Your task to perform on an android device: Open location settings Image 0: 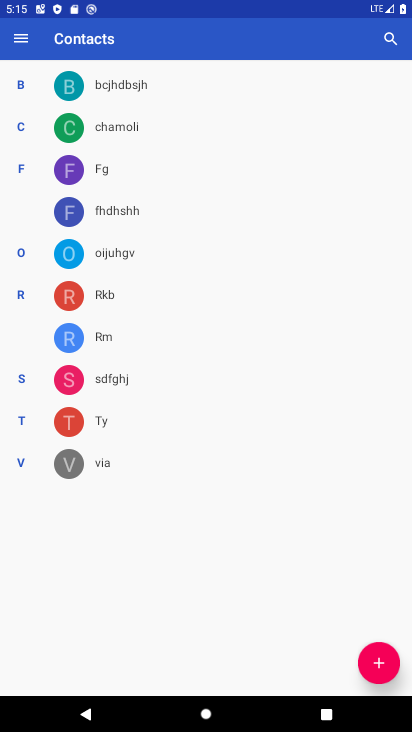
Step 0: drag from (245, 6) to (264, 609)
Your task to perform on an android device: Open location settings Image 1: 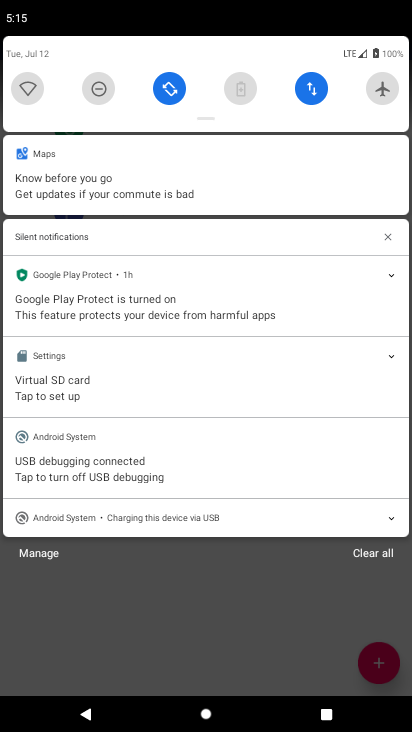
Step 1: drag from (208, 76) to (198, 665)
Your task to perform on an android device: Open location settings Image 2: 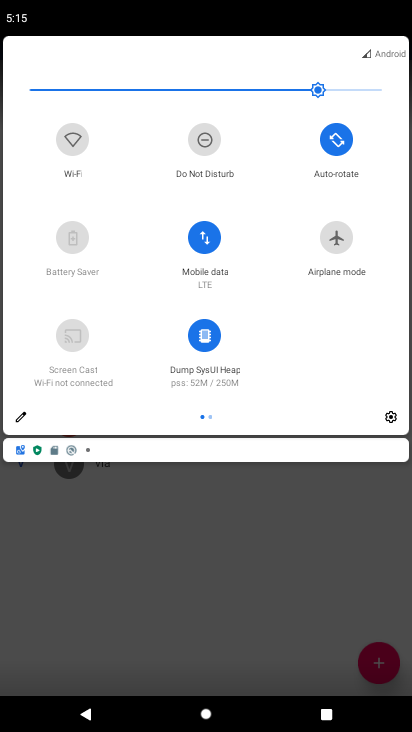
Step 2: click (378, 414)
Your task to perform on an android device: Open location settings Image 3: 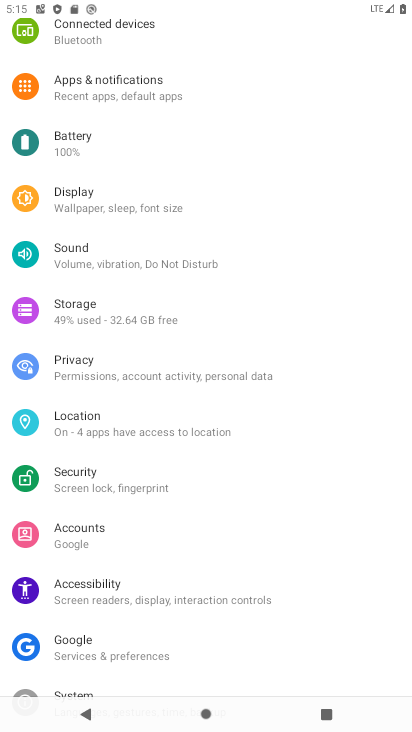
Step 3: click (99, 417)
Your task to perform on an android device: Open location settings Image 4: 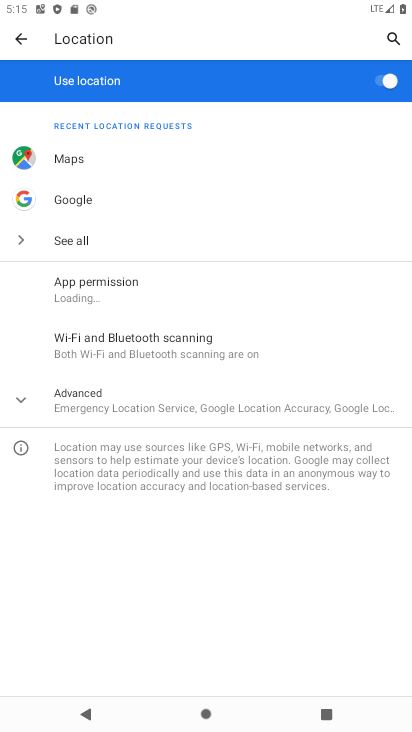
Step 4: task complete